Your task to perform on an android device: Check the news Image 0: 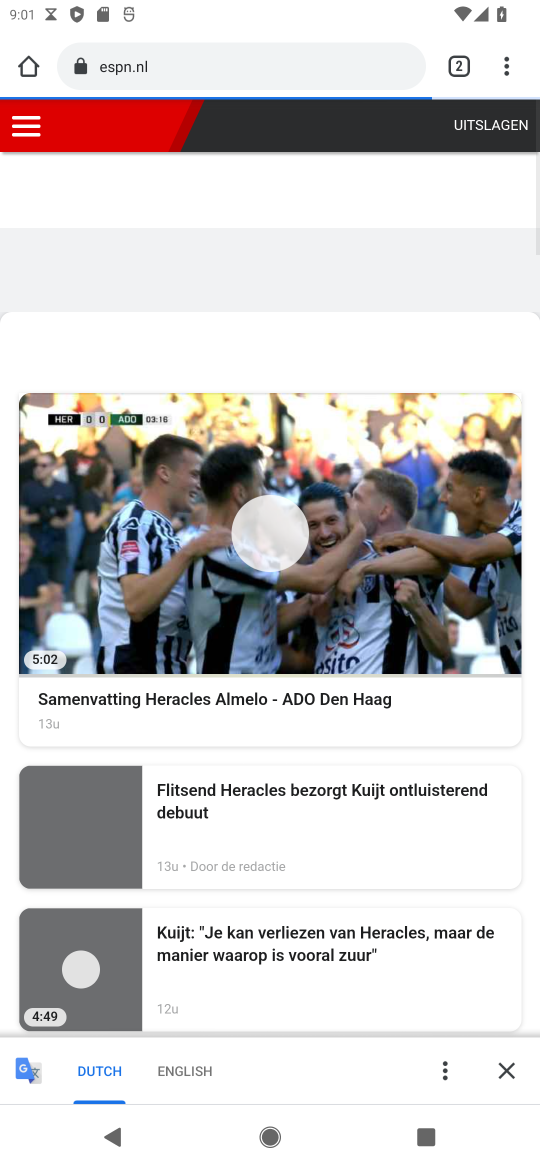
Step 0: press home button
Your task to perform on an android device: Check the news Image 1: 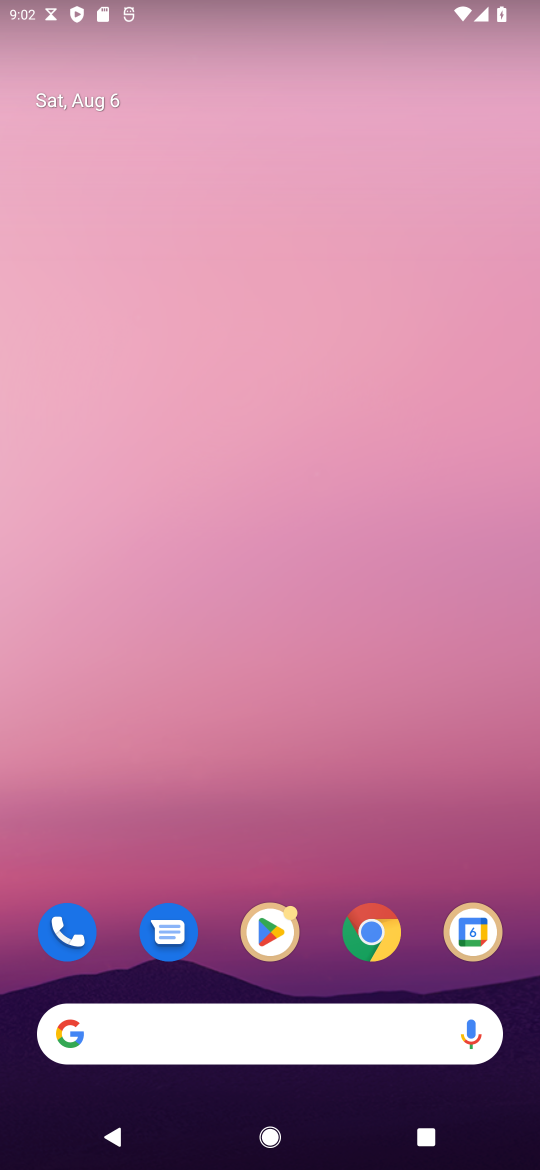
Step 1: click (373, 932)
Your task to perform on an android device: Check the news Image 2: 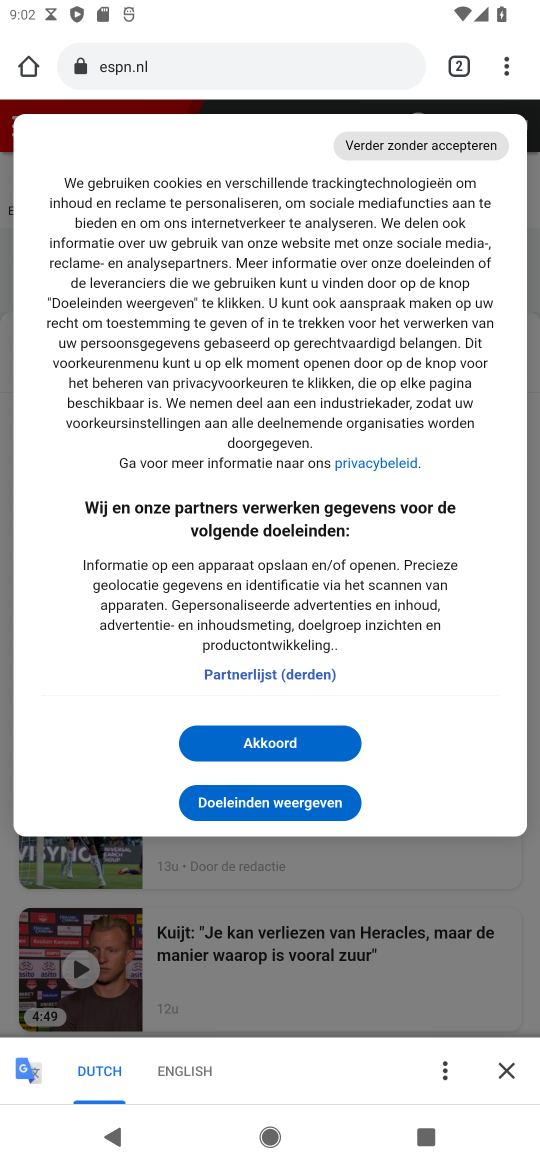
Step 2: click (266, 743)
Your task to perform on an android device: Check the news Image 3: 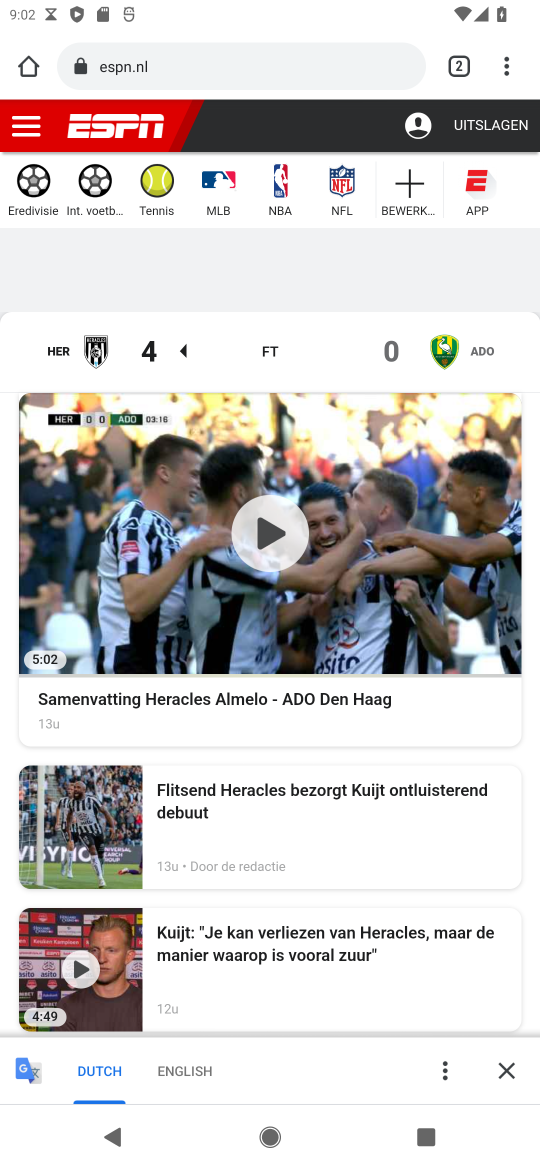
Step 3: click (302, 64)
Your task to perform on an android device: Check the news Image 4: 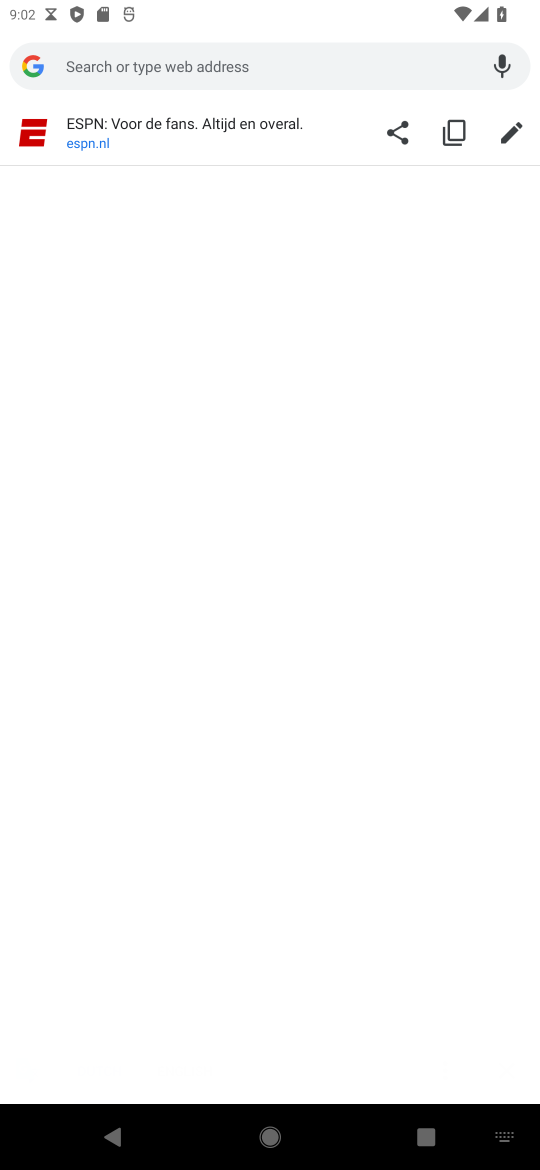
Step 4: type "news"
Your task to perform on an android device: Check the news Image 5: 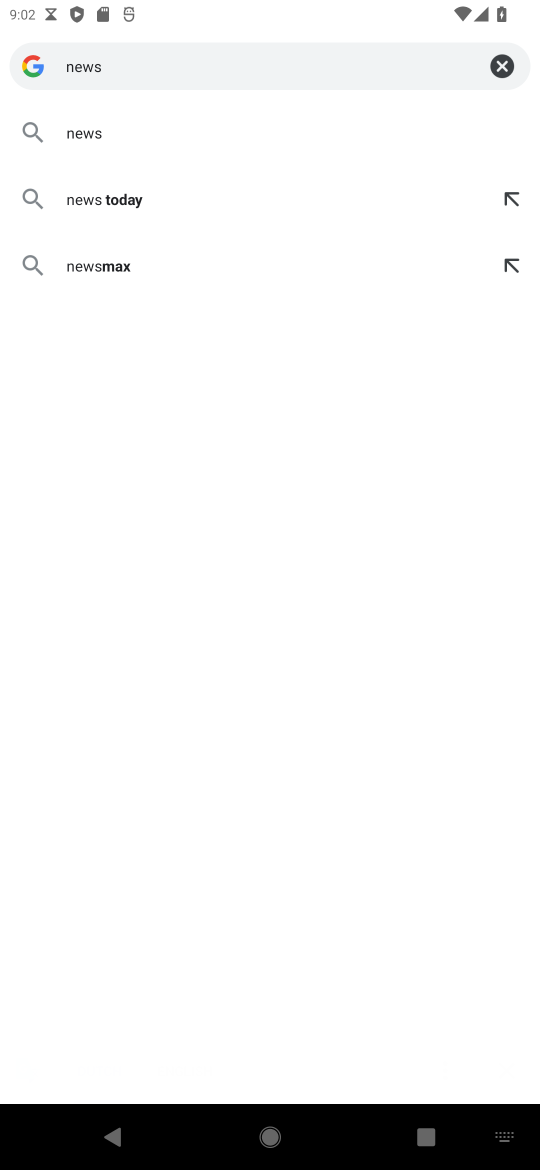
Step 5: click (87, 133)
Your task to perform on an android device: Check the news Image 6: 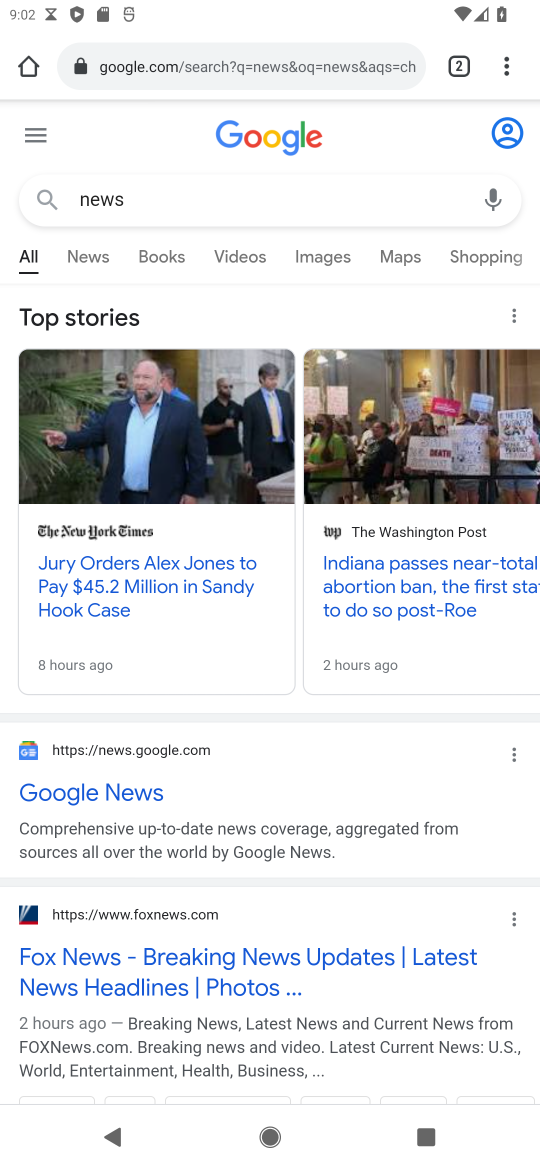
Step 6: click (371, 566)
Your task to perform on an android device: Check the news Image 7: 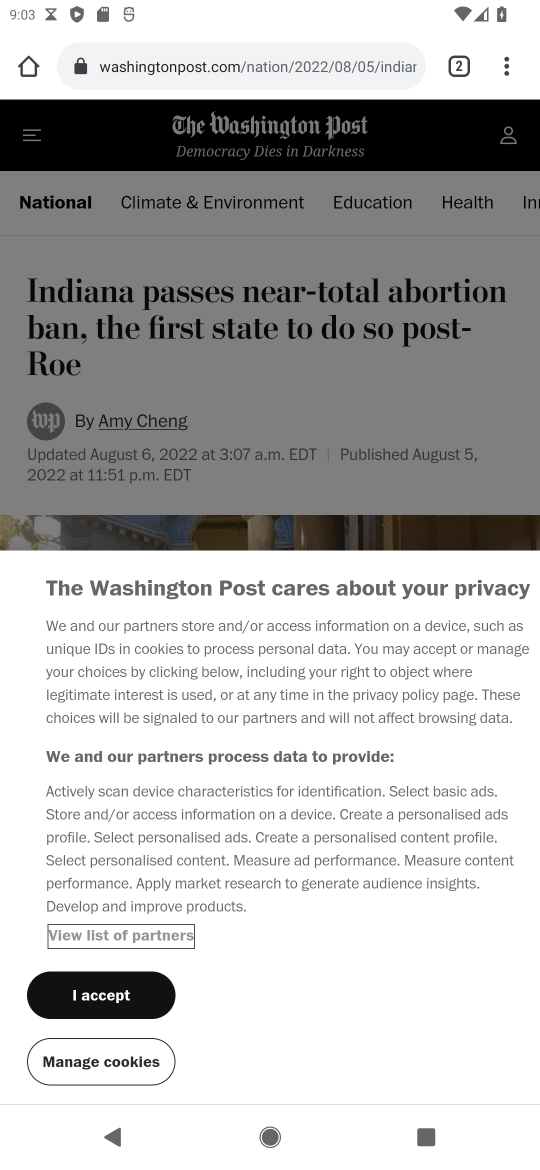
Step 7: click (131, 1013)
Your task to perform on an android device: Check the news Image 8: 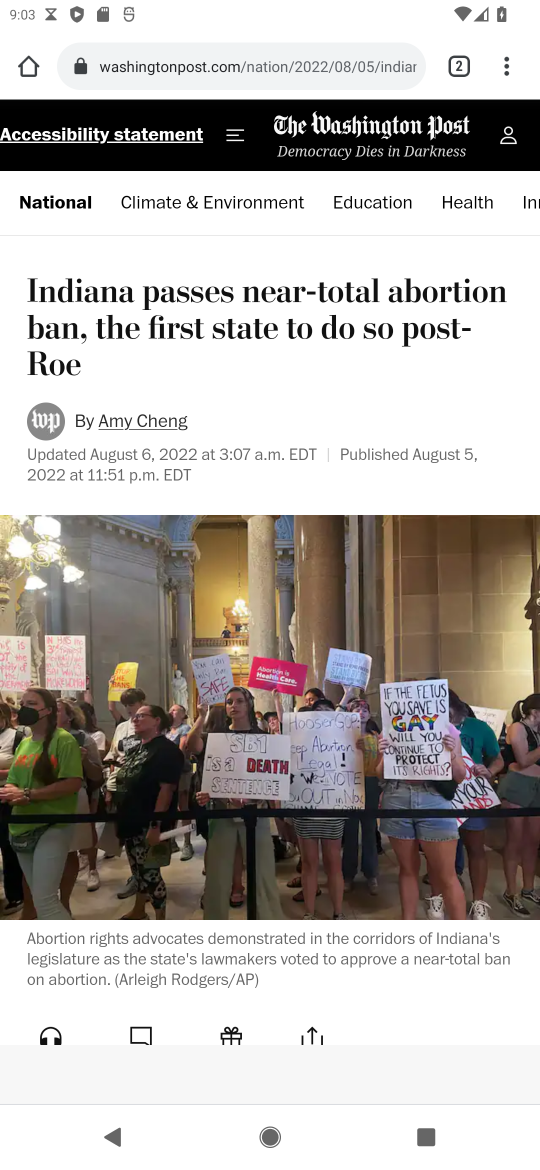
Step 8: task complete